Your task to perform on an android device: show emergency info Image 0: 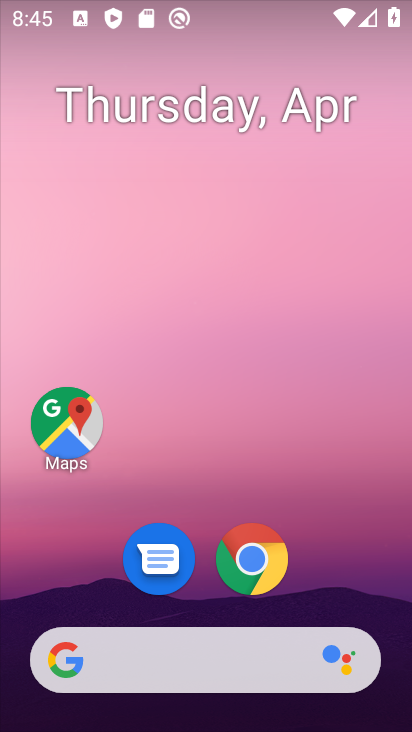
Step 0: drag from (228, 397) to (269, 35)
Your task to perform on an android device: show emergency info Image 1: 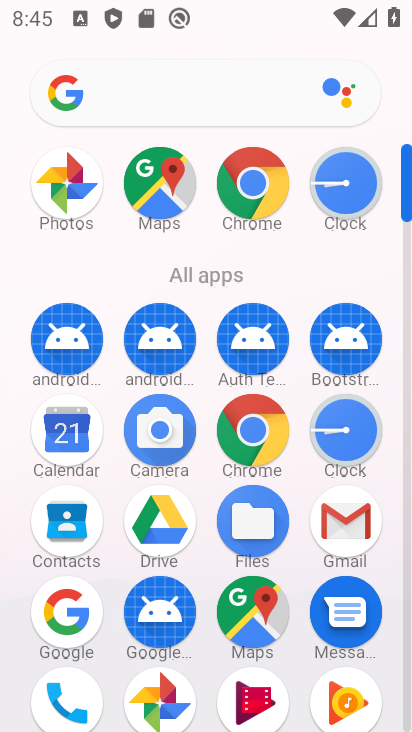
Step 1: drag from (190, 598) to (203, 223)
Your task to perform on an android device: show emergency info Image 2: 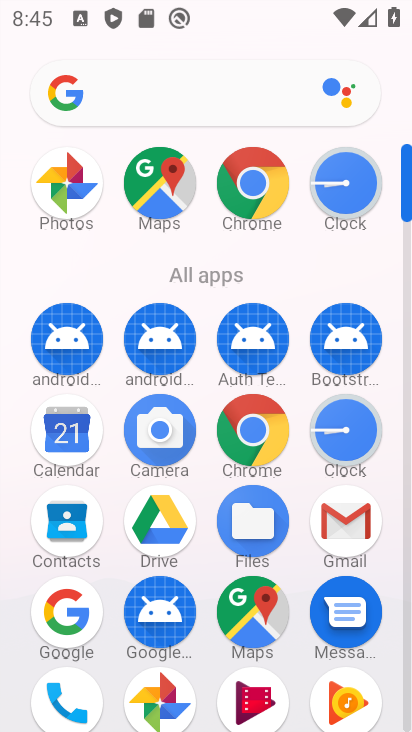
Step 2: drag from (287, 699) to (287, 203)
Your task to perform on an android device: show emergency info Image 3: 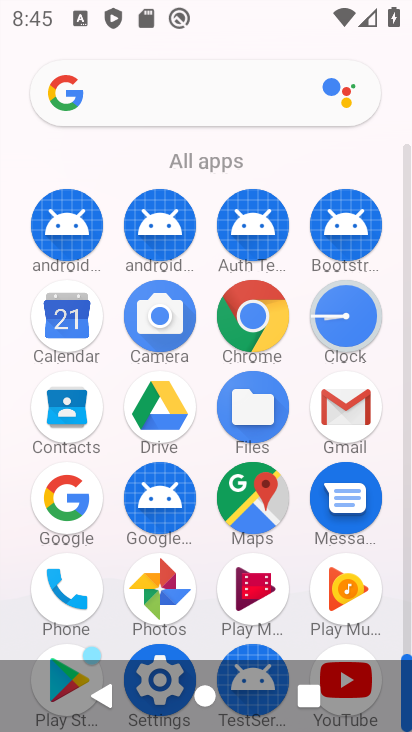
Step 3: click (146, 653)
Your task to perform on an android device: show emergency info Image 4: 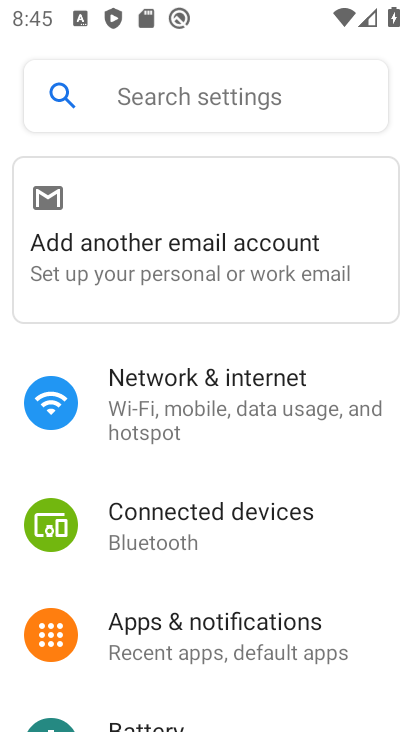
Step 4: drag from (332, 670) to (332, 98)
Your task to perform on an android device: show emergency info Image 5: 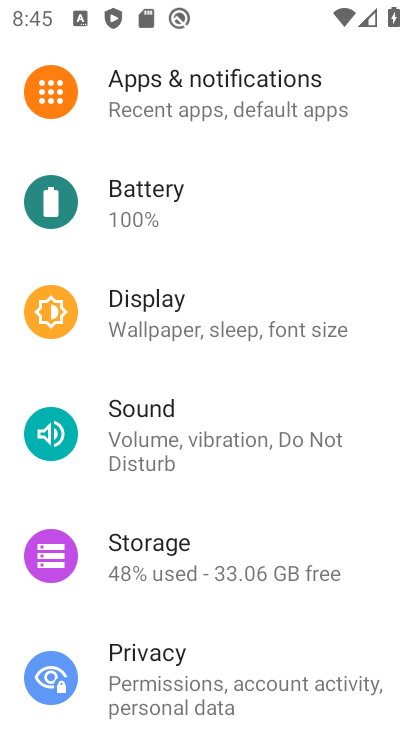
Step 5: drag from (294, 685) to (255, 72)
Your task to perform on an android device: show emergency info Image 6: 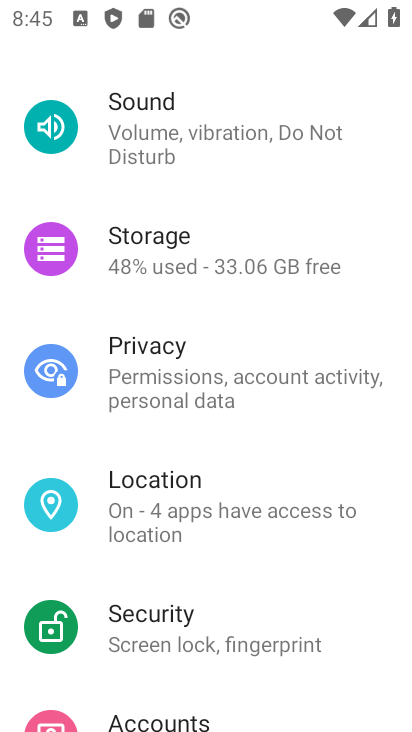
Step 6: drag from (270, 596) to (260, 58)
Your task to perform on an android device: show emergency info Image 7: 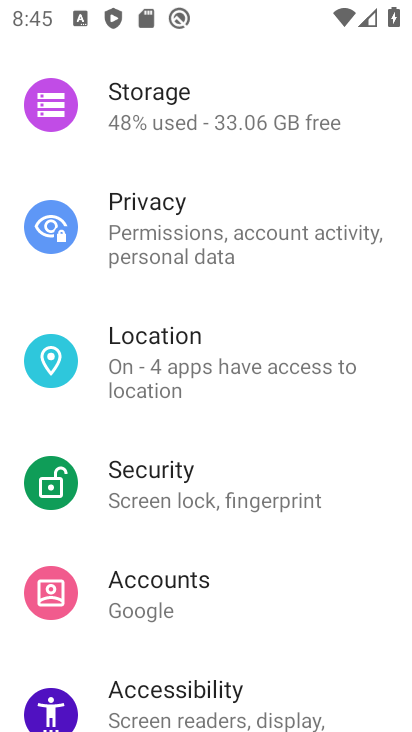
Step 7: drag from (336, 680) to (280, 68)
Your task to perform on an android device: show emergency info Image 8: 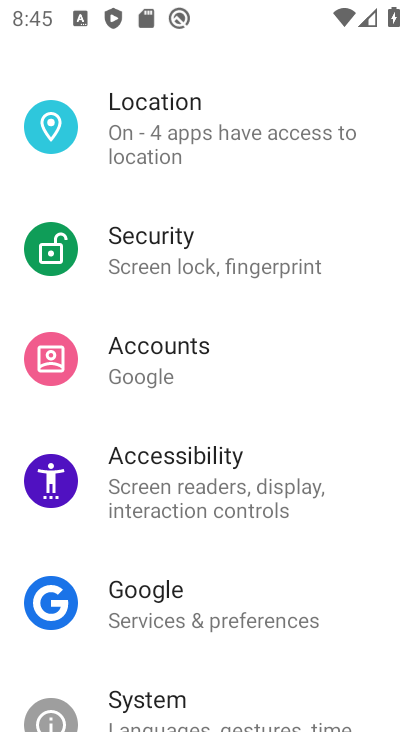
Step 8: drag from (299, 666) to (259, 59)
Your task to perform on an android device: show emergency info Image 9: 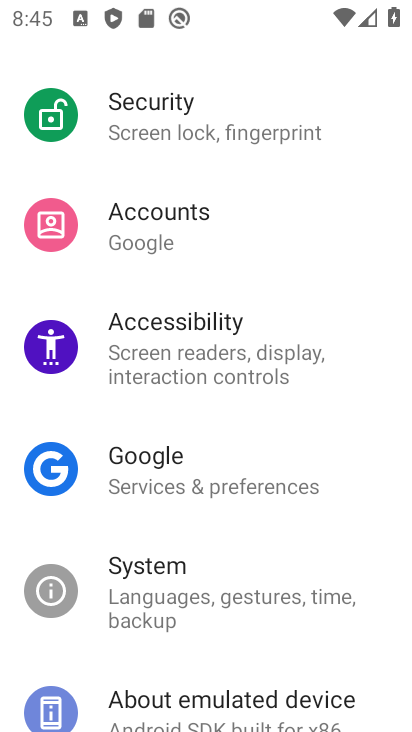
Step 9: drag from (261, 555) to (220, 79)
Your task to perform on an android device: show emergency info Image 10: 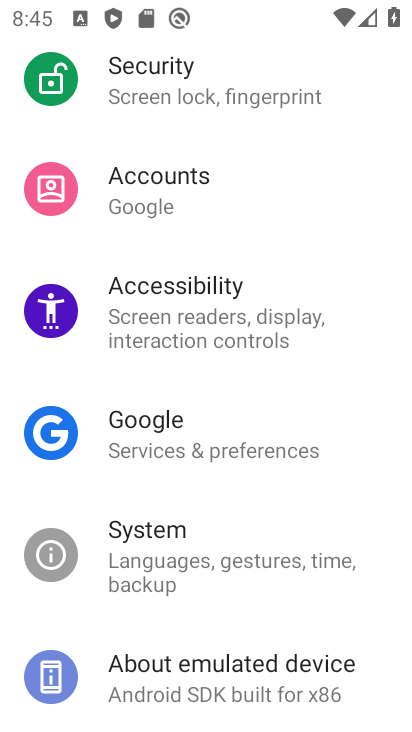
Step 10: click (273, 692)
Your task to perform on an android device: show emergency info Image 11: 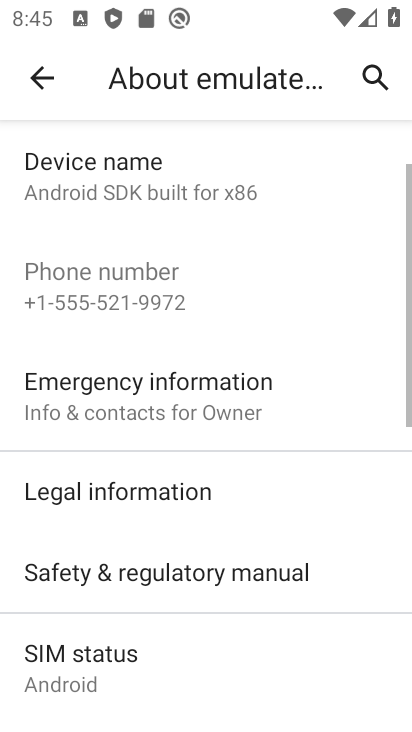
Step 11: click (263, 408)
Your task to perform on an android device: show emergency info Image 12: 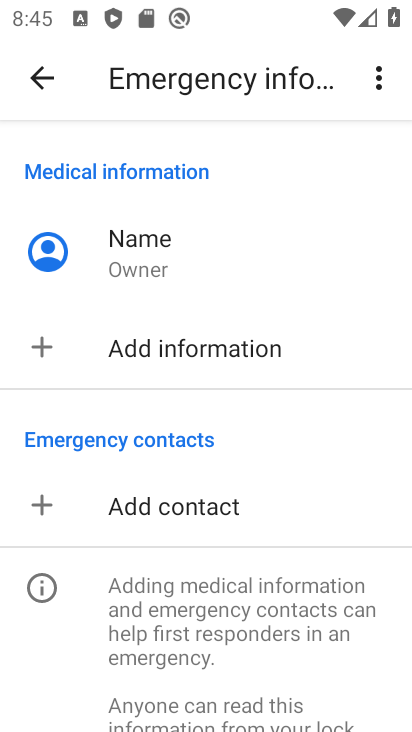
Step 12: task complete